Your task to perform on an android device: Go to eBay Image 0: 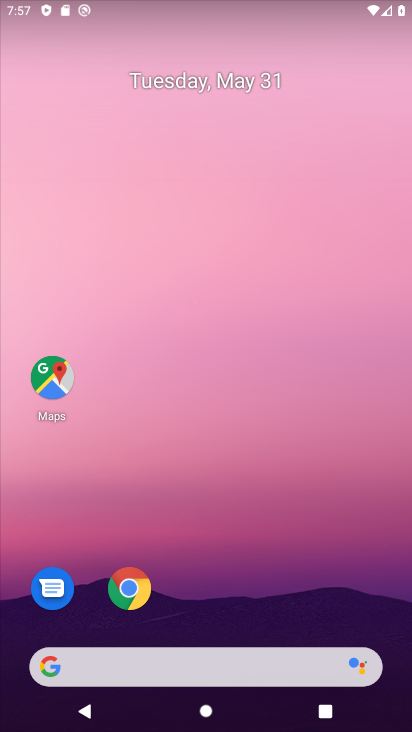
Step 0: click (138, 587)
Your task to perform on an android device: Go to eBay Image 1: 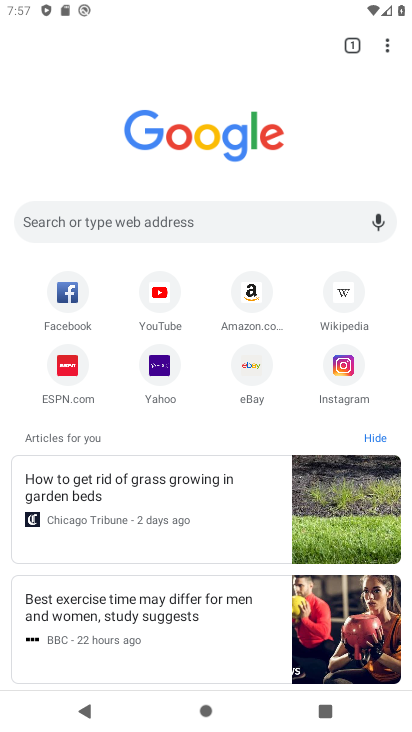
Step 1: click (239, 368)
Your task to perform on an android device: Go to eBay Image 2: 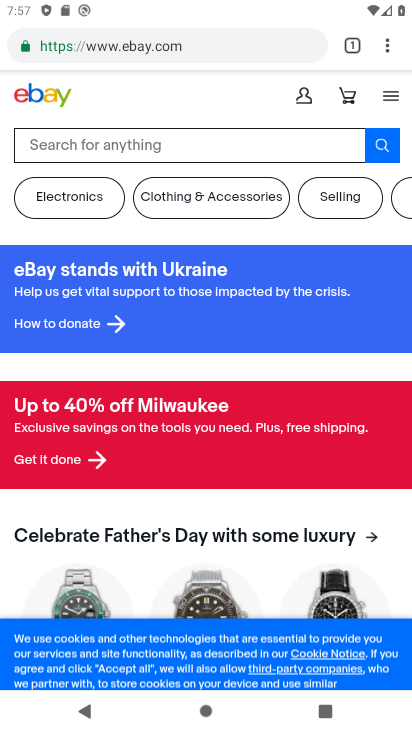
Step 2: task complete